Your task to perform on an android device: manage bookmarks in the chrome app Image 0: 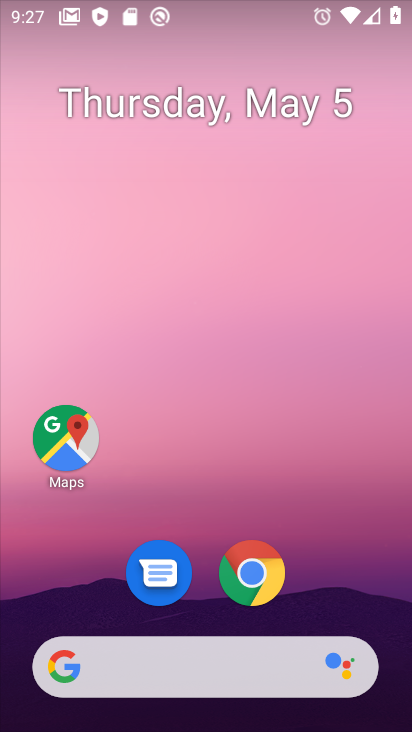
Step 0: click (240, 568)
Your task to perform on an android device: manage bookmarks in the chrome app Image 1: 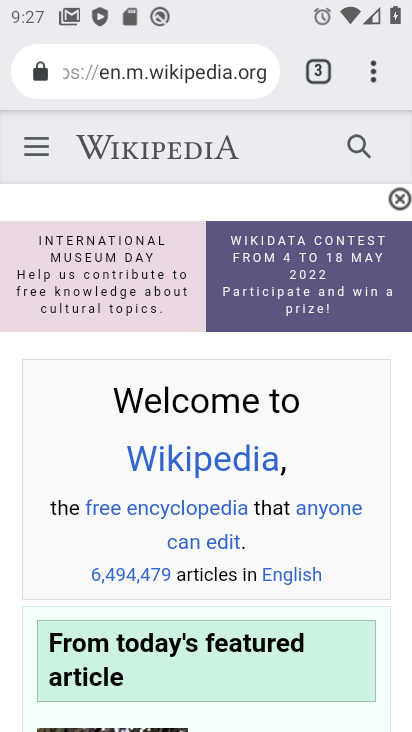
Step 1: drag from (376, 67) to (142, 266)
Your task to perform on an android device: manage bookmarks in the chrome app Image 2: 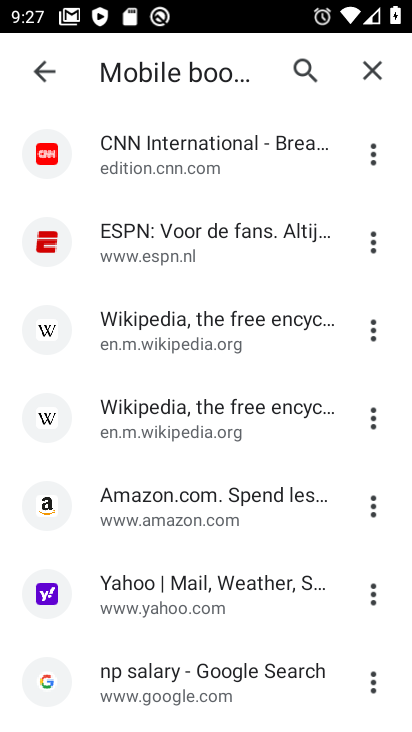
Step 2: click (369, 242)
Your task to perform on an android device: manage bookmarks in the chrome app Image 3: 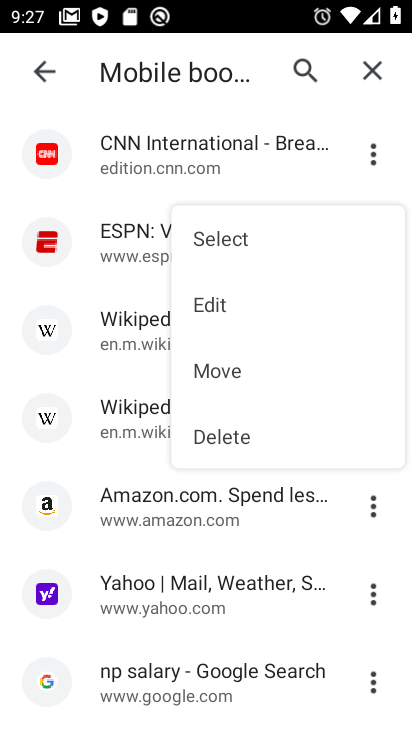
Step 3: click (212, 444)
Your task to perform on an android device: manage bookmarks in the chrome app Image 4: 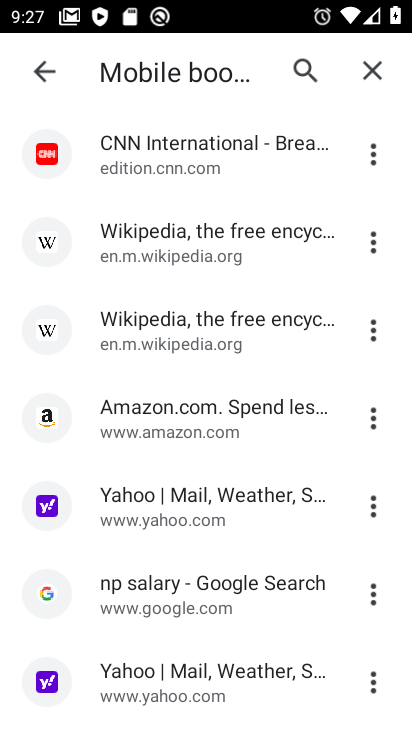
Step 4: task complete